Your task to perform on an android device: toggle data saver in the chrome app Image 0: 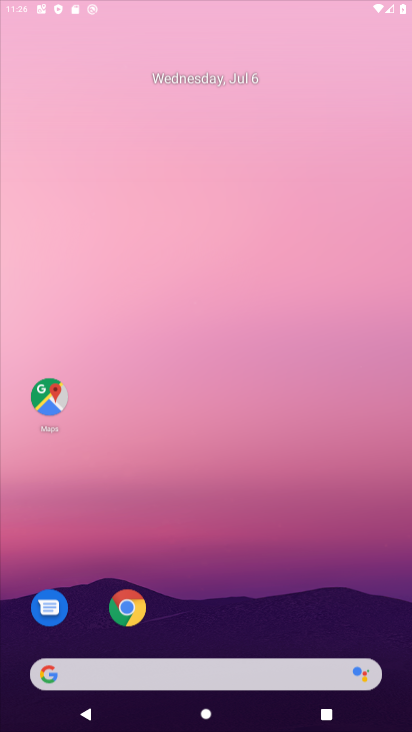
Step 0: press home button
Your task to perform on an android device: toggle data saver in the chrome app Image 1: 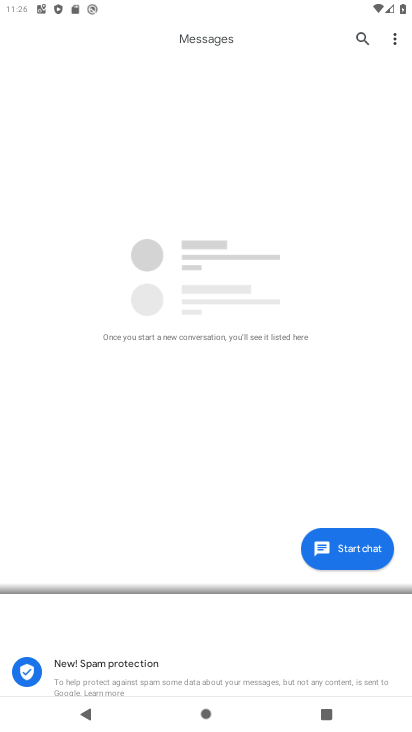
Step 1: click (313, 39)
Your task to perform on an android device: toggle data saver in the chrome app Image 2: 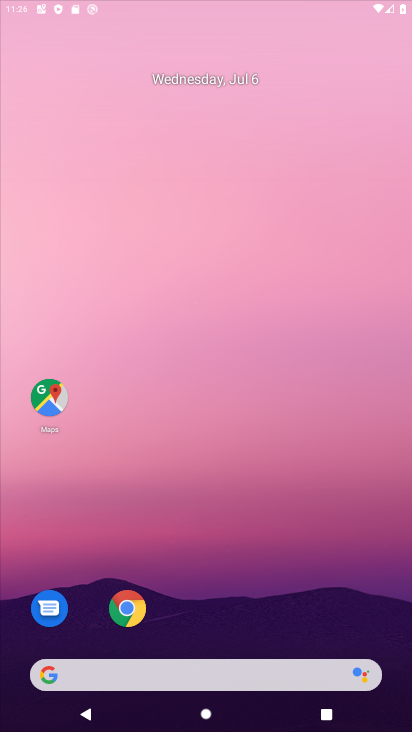
Step 2: drag from (346, 13) to (310, 603)
Your task to perform on an android device: toggle data saver in the chrome app Image 3: 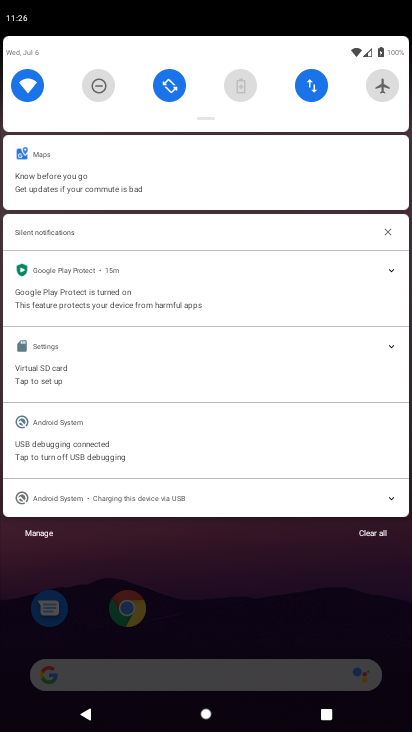
Step 3: drag from (194, 472) to (129, 74)
Your task to perform on an android device: toggle data saver in the chrome app Image 4: 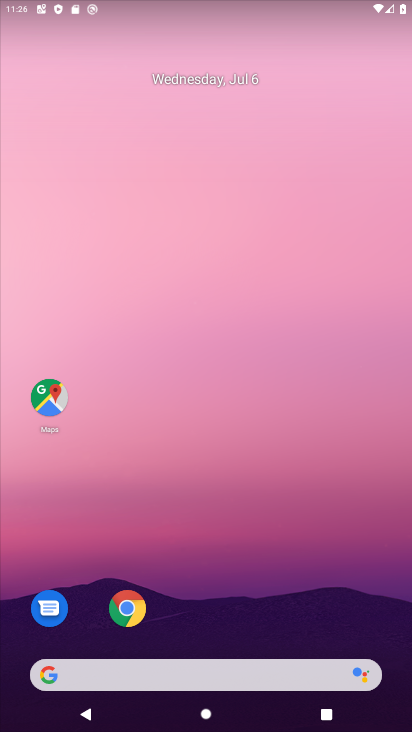
Step 4: click (106, 612)
Your task to perform on an android device: toggle data saver in the chrome app Image 5: 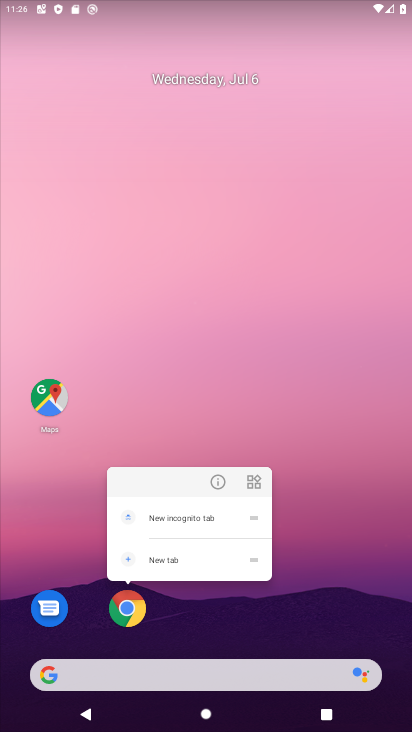
Step 5: click (126, 612)
Your task to perform on an android device: toggle data saver in the chrome app Image 6: 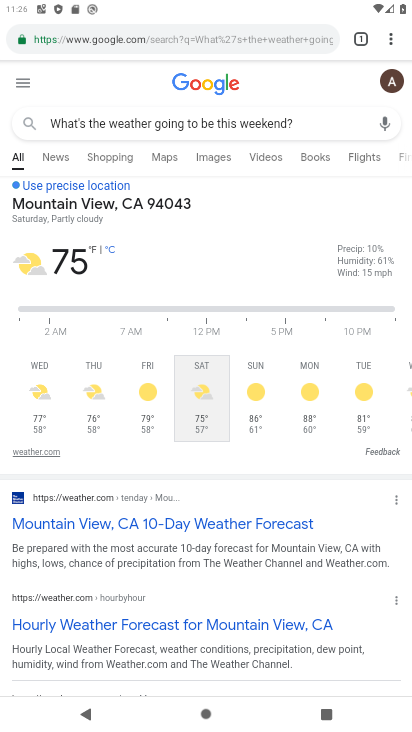
Step 6: drag from (388, 30) to (273, 490)
Your task to perform on an android device: toggle data saver in the chrome app Image 7: 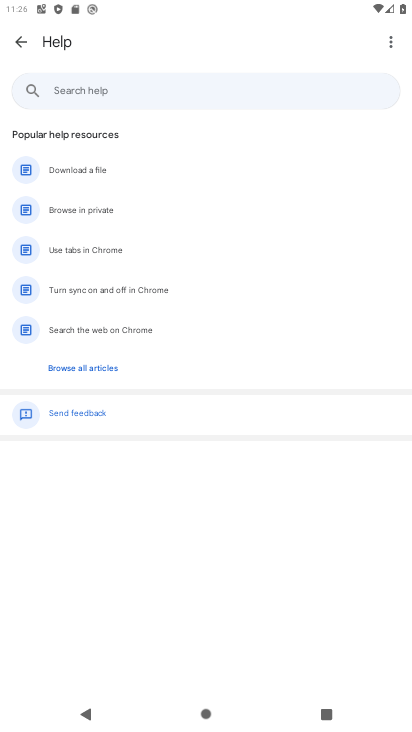
Step 7: press back button
Your task to perform on an android device: toggle data saver in the chrome app Image 8: 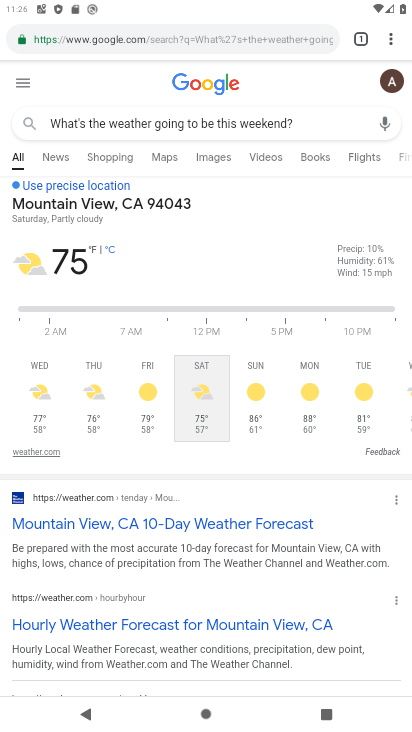
Step 8: drag from (389, 41) to (226, 479)
Your task to perform on an android device: toggle data saver in the chrome app Image 9: 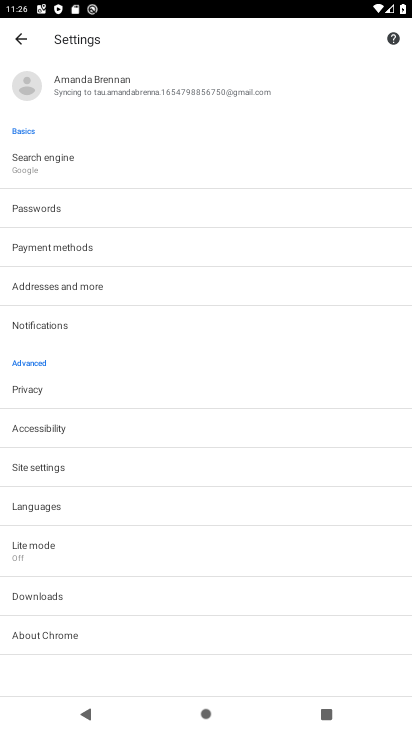
Step 9: click (48, 556)
Your task to perform on an android device: toggle data saver in the chrome app Image 10: 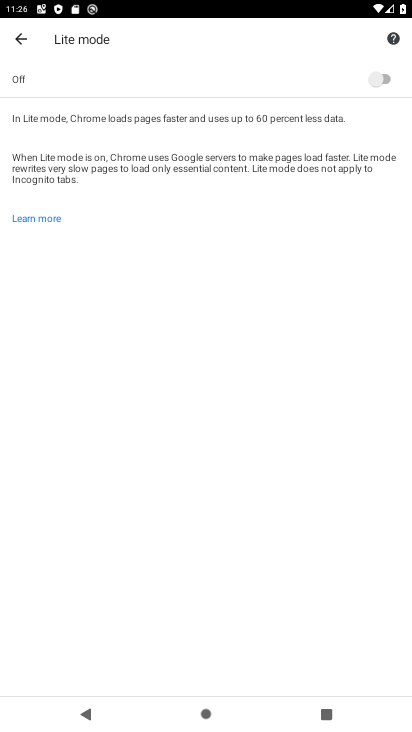
Step 10: click (217, 91)
Your task to perform on an android device: toggle data saver in the chrome app Image 11: 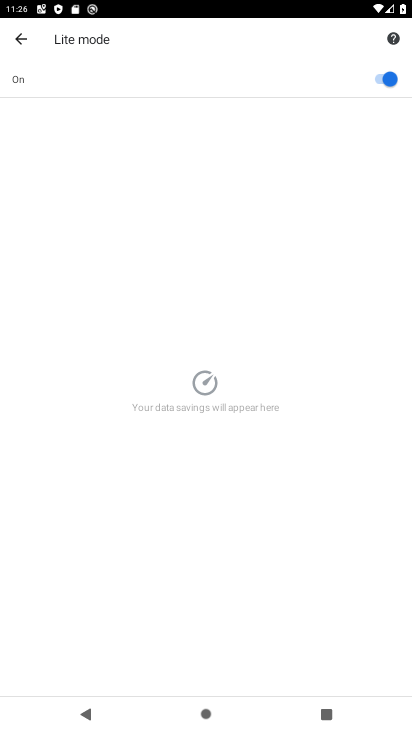
Step 11: task complete